Your task to perform on an android device: turn off picture-in-picture Image 0: 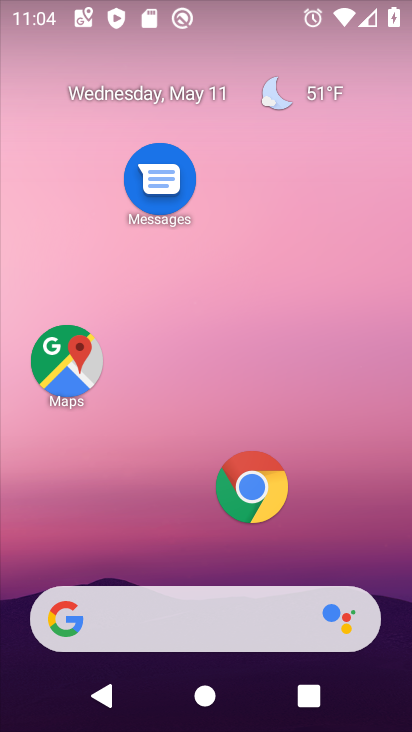
Step 0: click (271, 471)
Your task to perform on an android device: turn off picture-in-picture Image 1: 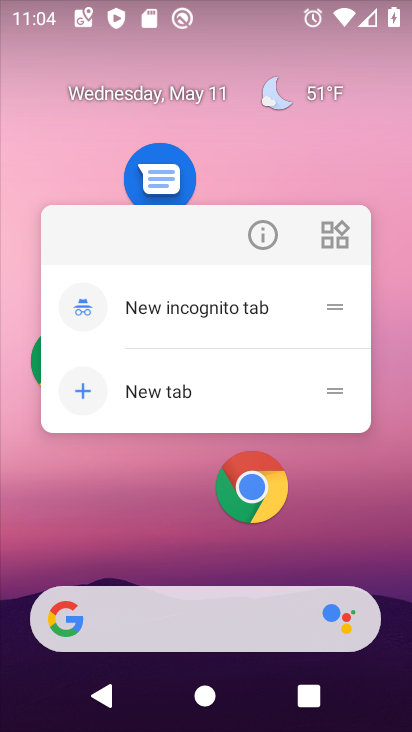
Step 1: click (275, 237)
Your task to perform on an android device: turn off picture-in-picture Image 2: 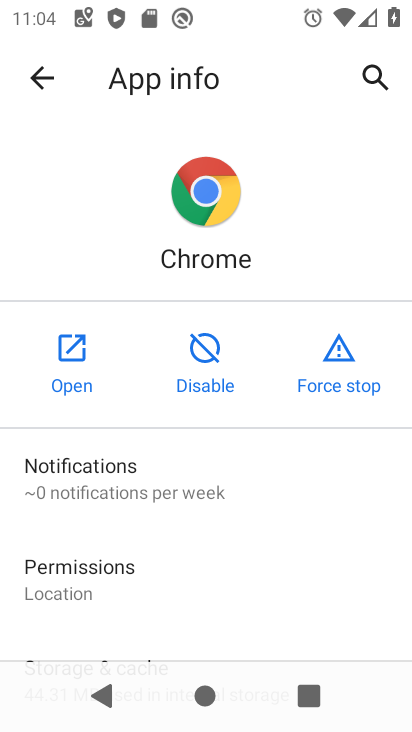
Step 2: drag from (228, 625) to (249, 147)
Your task to perform on an android device: turn off picture-in-picture Image 3: 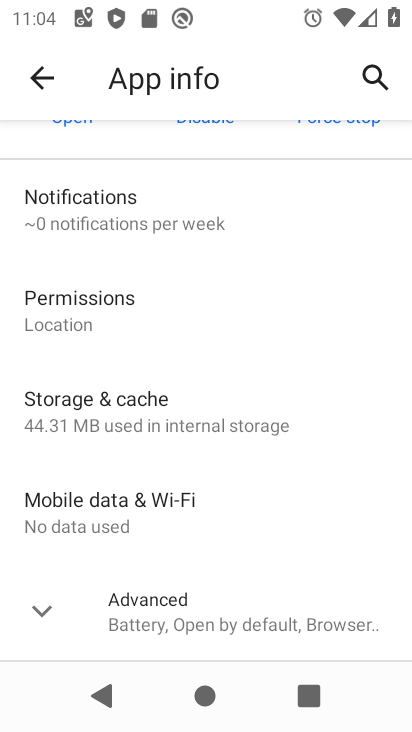
Step 3: click (210, 623)
Your task to perform on an android device: turn off picture-in-picture Image 4: 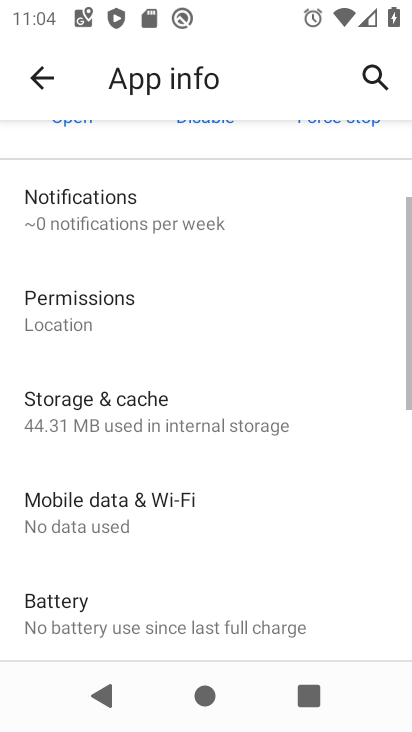
Step 4: drag from (210, 623) to (240, 211)
Your task to perform on an android device: turn off picture-in-picture Image 5: 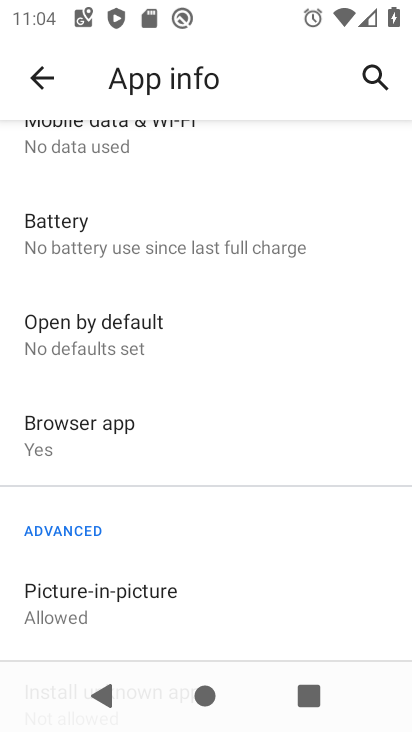
Step 5: click (154, 610)
Your task to perform on an android device: turn off picture-in-picture Image 6: 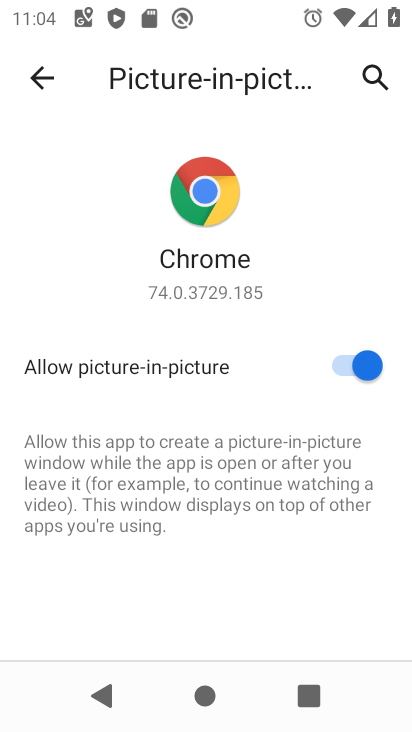
Step 6: click (330, 363)
Your task to perform on an android device: turn off picture-in-picture Image 7: 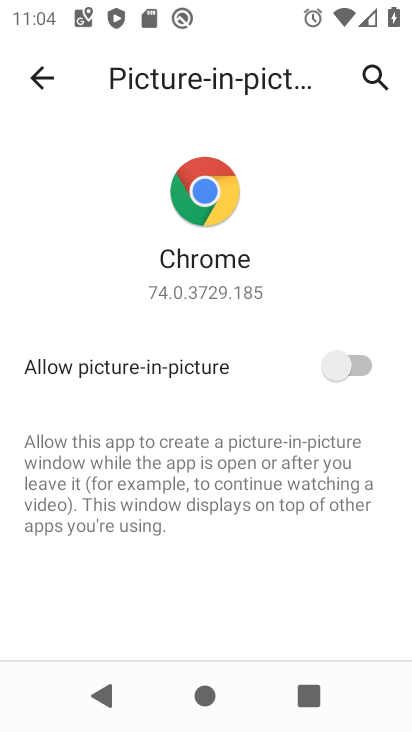
Step 7: task complete